Your task to perform on an android device: Go to CNN.com Image 0: 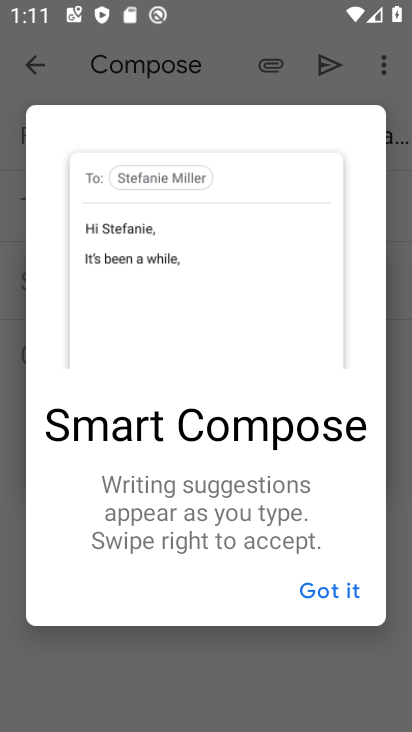
Step 0: press back button
Your task to perform on an android device: Go to CNN.com Image 1: 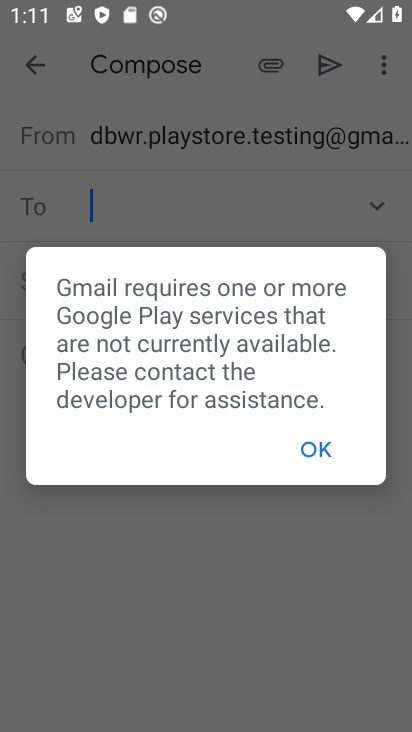
Step 1: press home button
Your task to perform on an android device: Go to CNN.com Image 2: 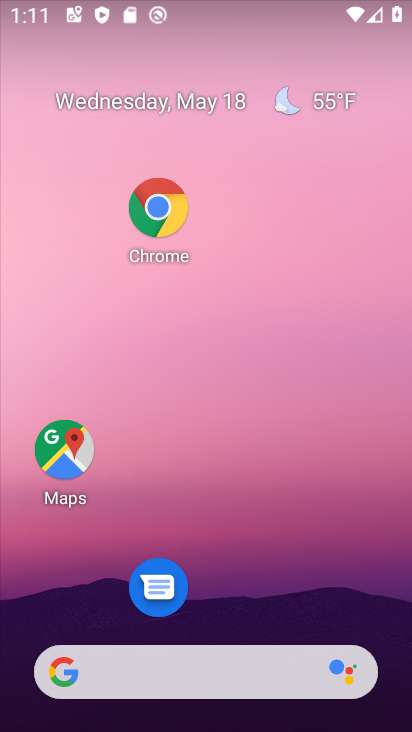
Step 2: click (159, 238)
Your task to perform on an android device: Go to CNN.com Image 3: 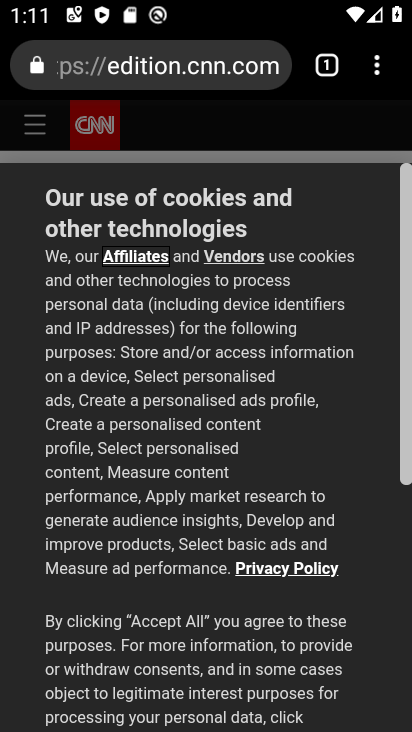
Step 3: task complete